Your task to perform on an android device: turn on showing notifications on the lock screen Image 0: 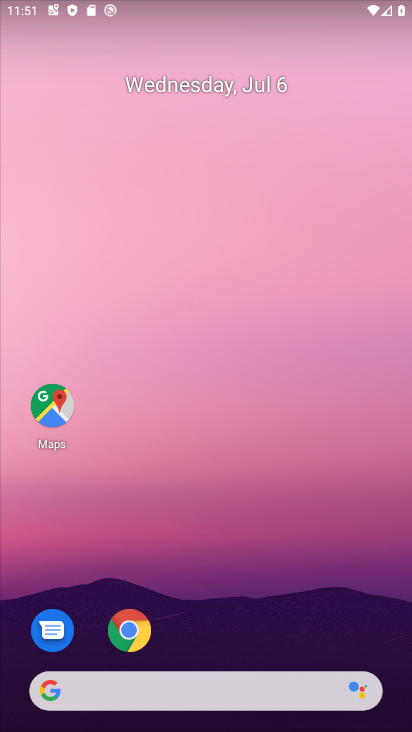
Step 0: drag from (207, 623) to (234, 200)
Your task to perform on an android device: turn on showing notifications on the lock screen Image 1: 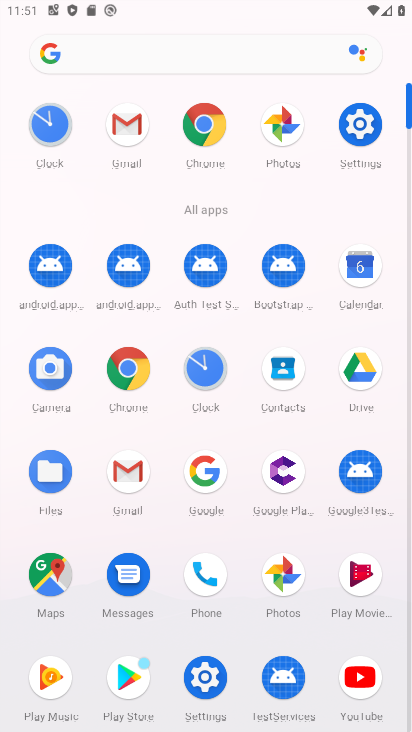
Step 1: click (208, 667)
Your task to perform on an android device: turn on showing notifications on the lock screen Image 2: 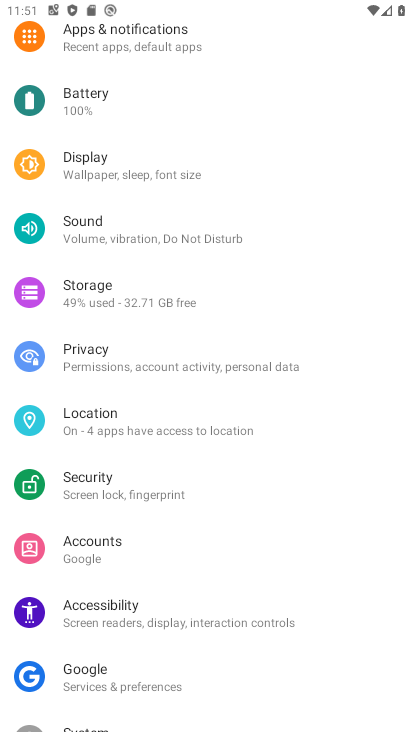
Step 2: drag from (169, 126) to (182, 237)
Your task to perform on an android device: turn on showing notifications on the lock screen Image 3: 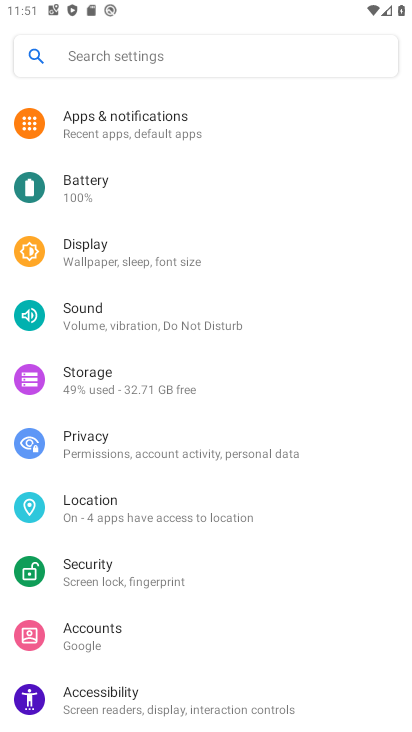
Step 3: click (158, 126)
Your task to perform on an android device: turn on showing notifications on the lock screen Image 4: 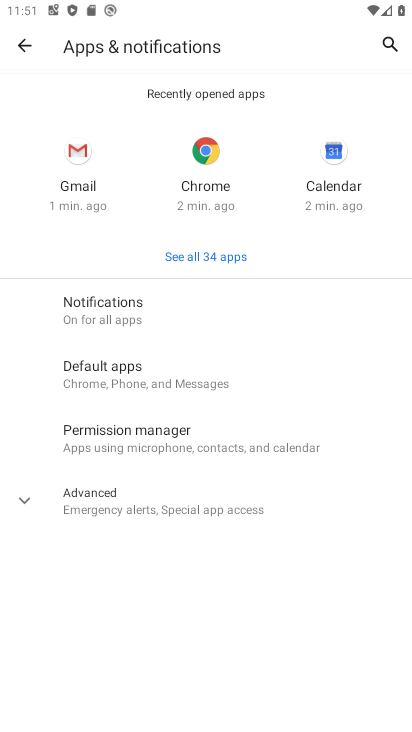
Step 4: click (165, 300)
Your task to perform on an android device: turn on showing notifications on the lock screen Image 5: 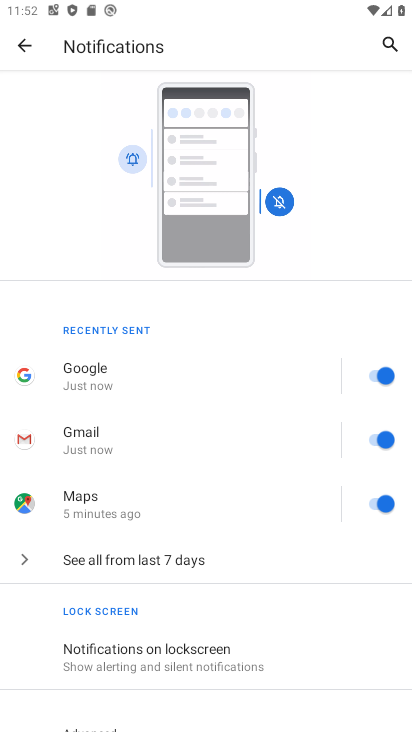
Step 5: drag from (253, 577) to (255, 485)
Your task to perform on an android device: turn on showing notifications on the lock screen Image 6: 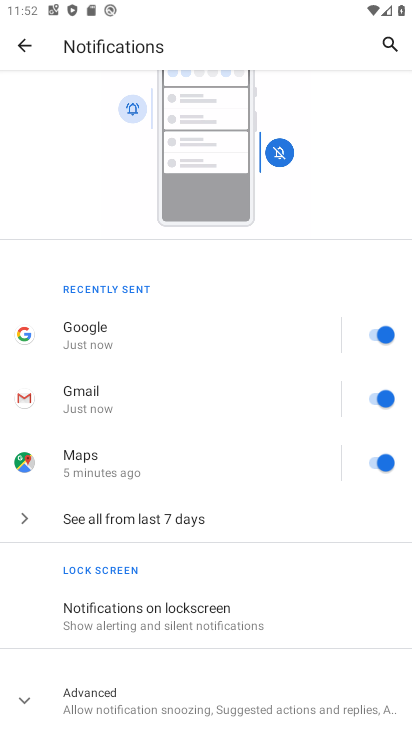
Step 6: click (193, 632)
Your task to perform on an android device: turn on showing notifications on the lock screen Image 7: 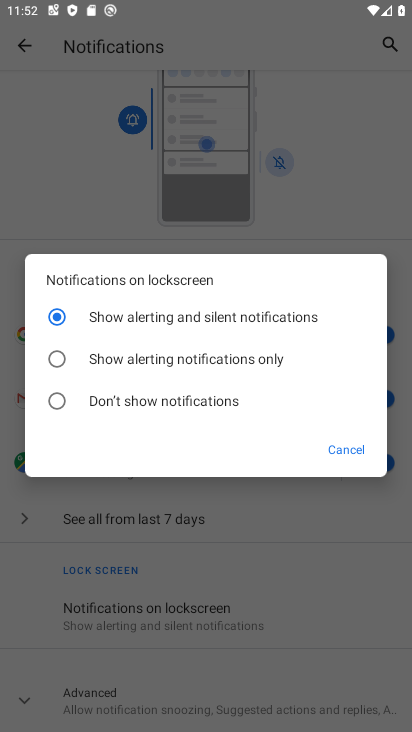
Step 7: task complete